Your task to perform on an android device: Show me the alarms in the clock app Image 0: 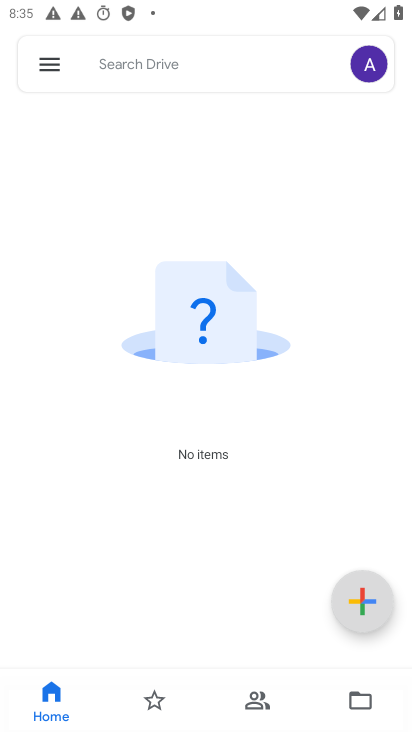
Step 0: press home button
Your task to perform on an android device: Show me the alarms in the clock app Image 1: 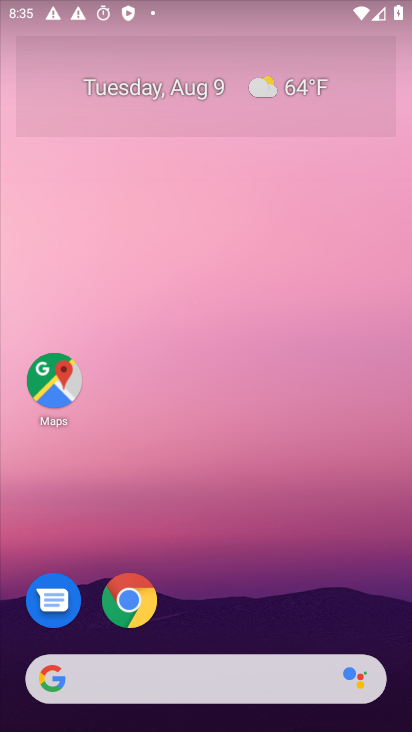
Step 1: drag from (244, 638) to (348, 131)
Your task to perform on an android device: Show me the alarms in the clock app Image 2: 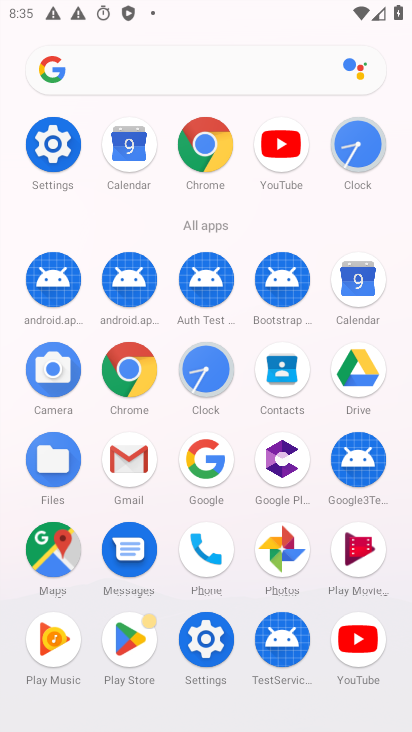
Step 2: click (367, 157)
Your task to perform on an android device: Show me the alarms in the clock app Image 3: 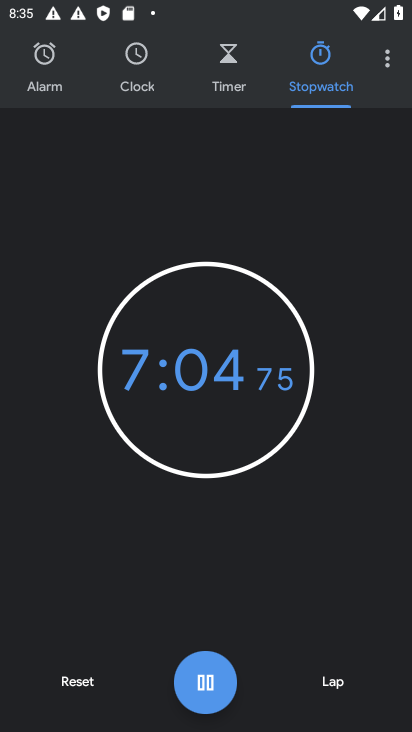
Step 3: click (42, 72)
Your task to perform on an android device: Show me the alarms in the clock app Image 4: 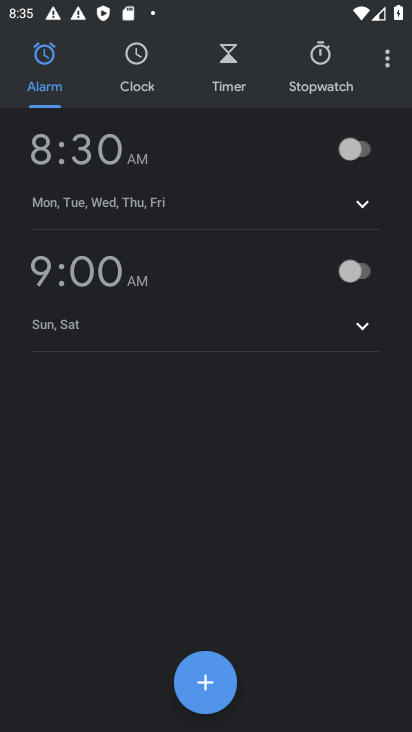
Step 4: task complete